Your task to perform on an android device: How much does a 2 bedroom apartment rent for in Miami? Image 0: 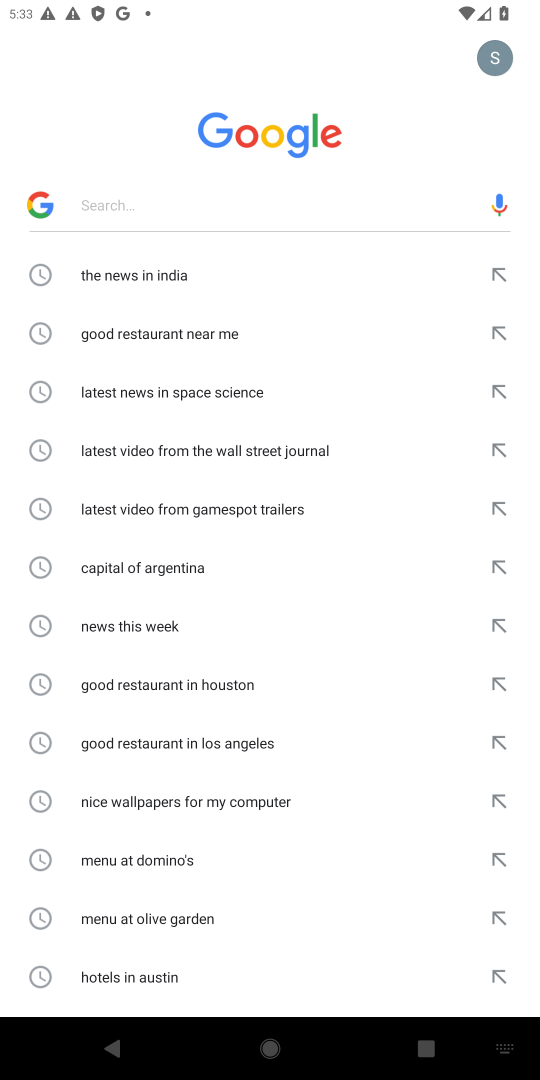
Step 0: type "2 bedroom apartment rent for in Miami"
Your task to perform on an android device: How much does a 2 bedroom apartment rent for in Miami? Image 1: 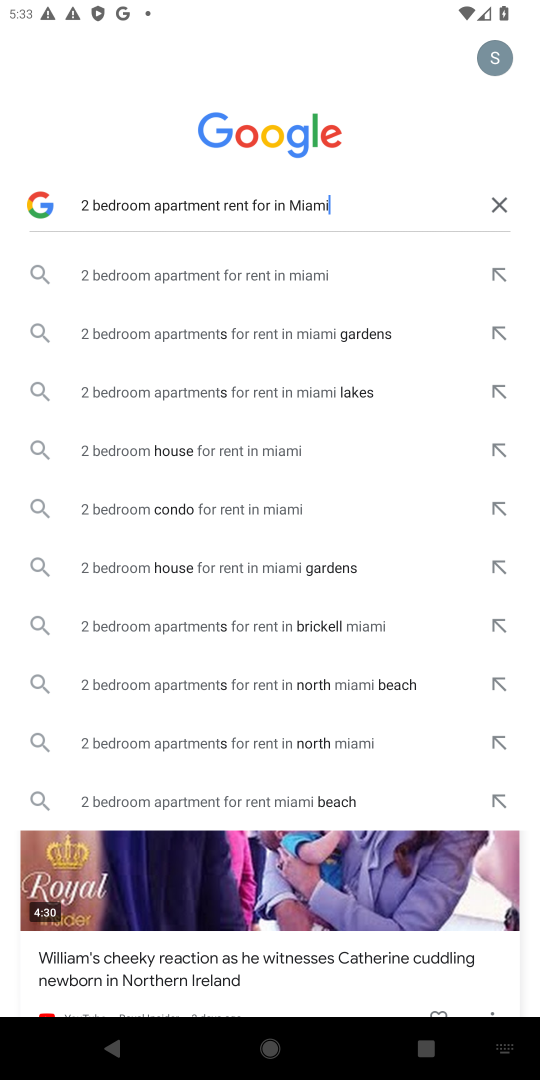
Step 1: click (213, 268)
Your task to perform on an android device: How much does a 2 bedroom apartment rent for in Miami? Image 2: 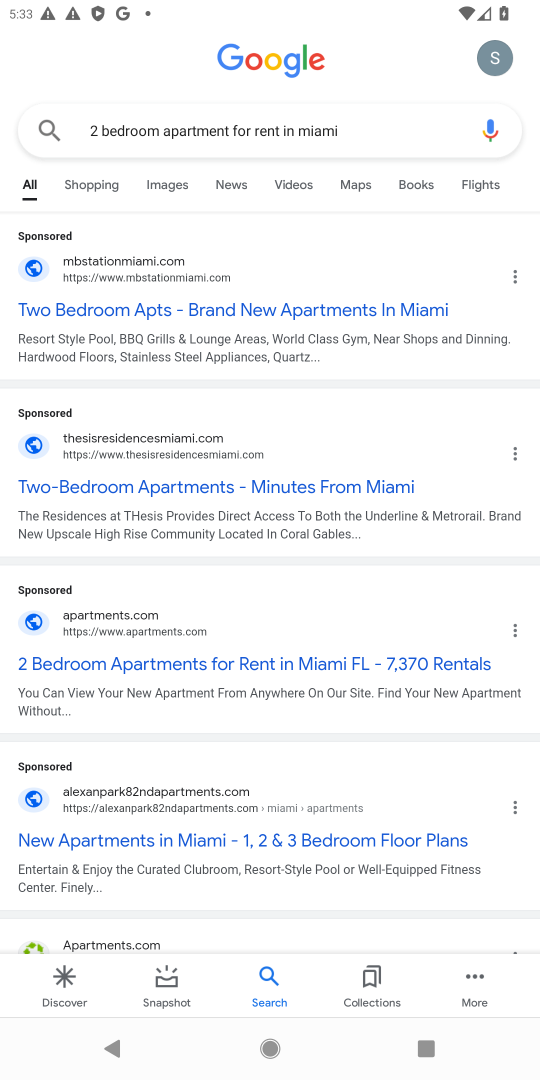
Step 2: click (299, 313)
Your task to perform on an android device: How much does a 2 bedroom apartment rent for in Miami? Image 3: 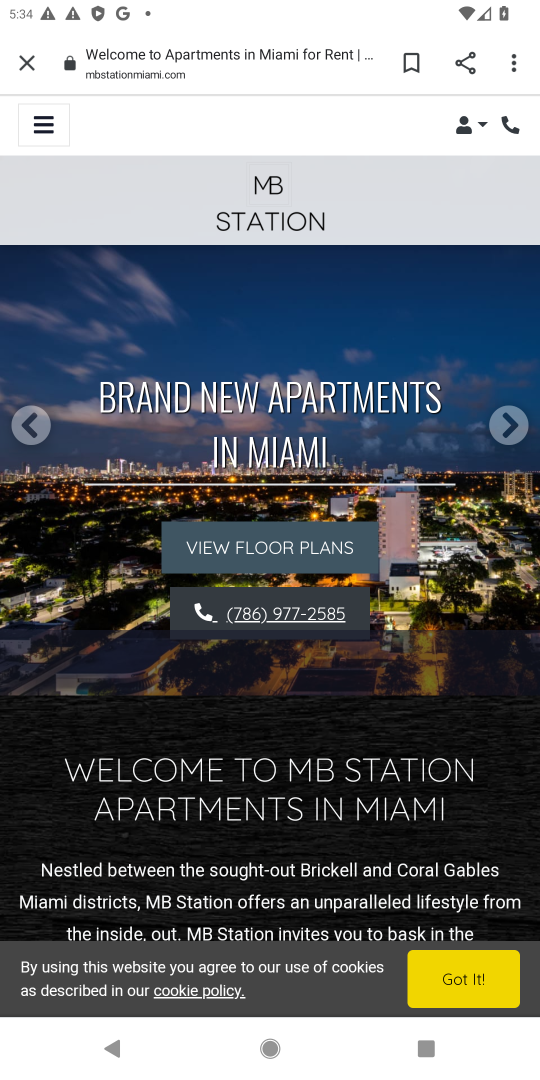
Step 3: task complete